Your task to perform on an android device: What's the weather going to be this weekend? Image 0: 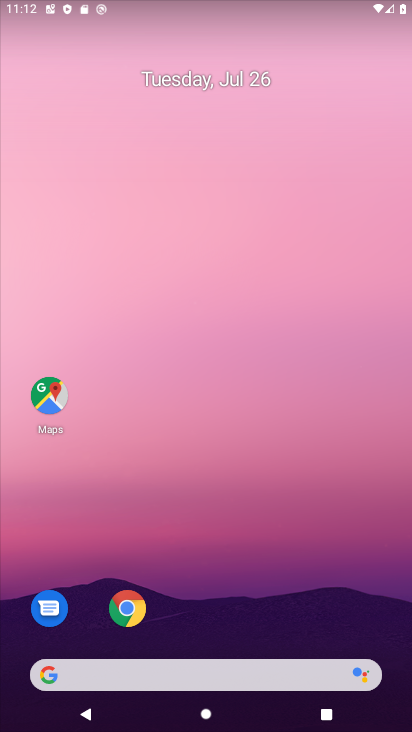
Step 0: click (202, 677)
Your task to perform on an android device: What's the weather going to be this weekend? Image 1: 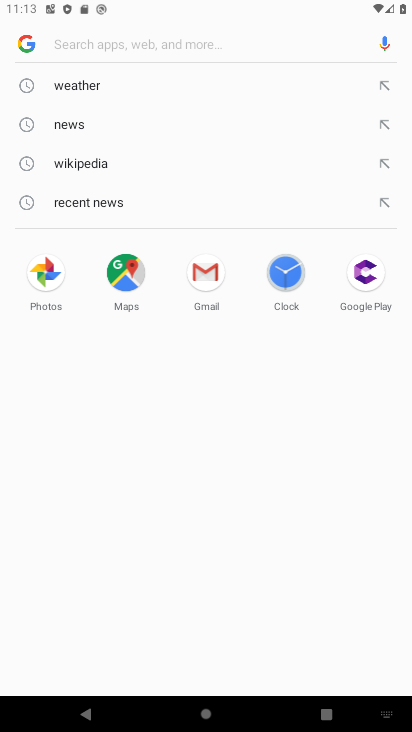
Step 1: type "what's the weather going to be this weekend"
Your task to perform on an android device: What's the weather going to be this weekend? Image 2: 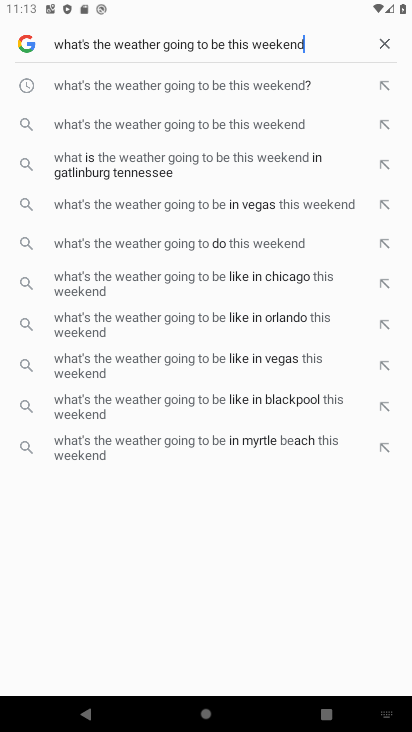
Step 2: click (258, 79)
Your task to perform on an android device: What's the weather going to be this weekend? Image 3: 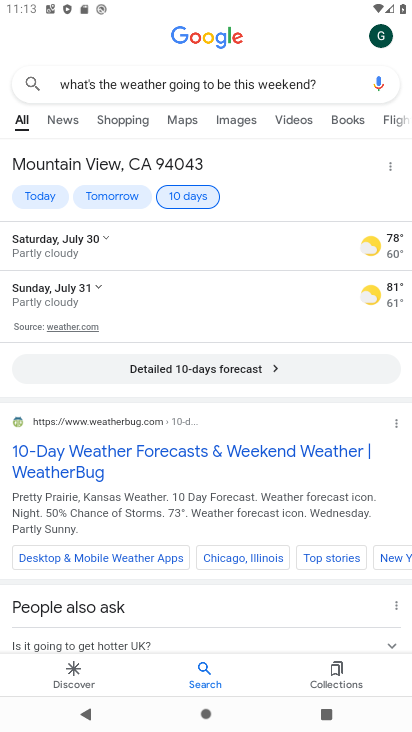
Step 3: task complete